Your task to perform on an android device: Open Chrome and go to settings Image 0: 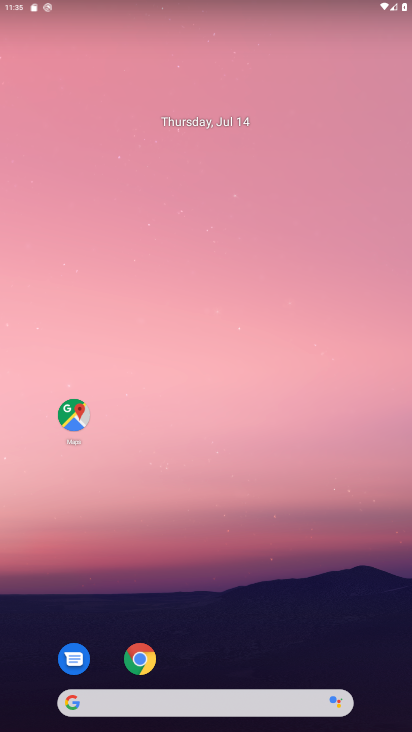
Step 0: click (142, 653)
Your task to perform on an android device: Open Chrome and go to settings Image 1: 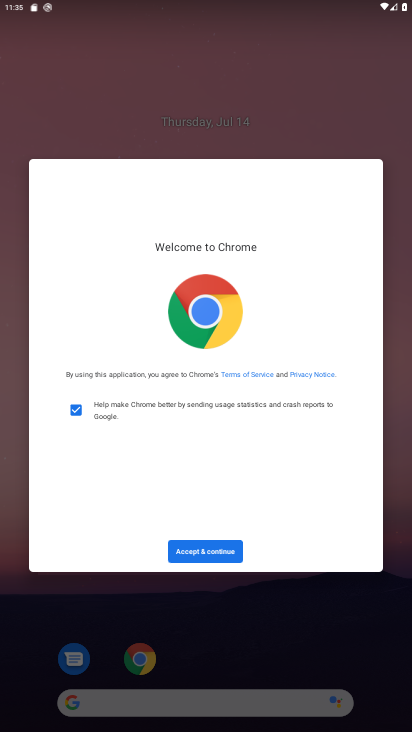
Step 1: click (225, 551)
Your task to perform on an android device: Open Chrome and go to settings Image 2: 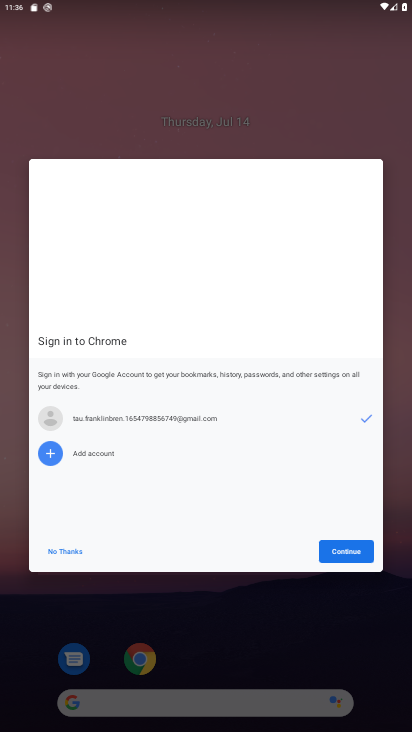
Step 2: click (332, 555)
Your task to perform on an android device: Open Chrome and go to settings Image 3: 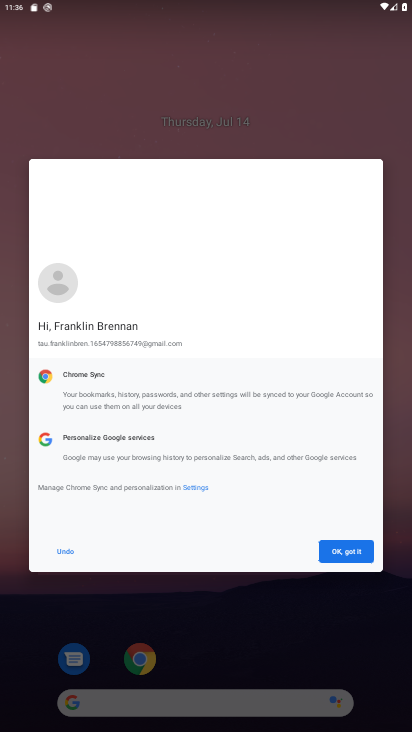
Step 3: click (332, 555)
Your task to perform on an android device: Open Chrome and go to settings Image 4: 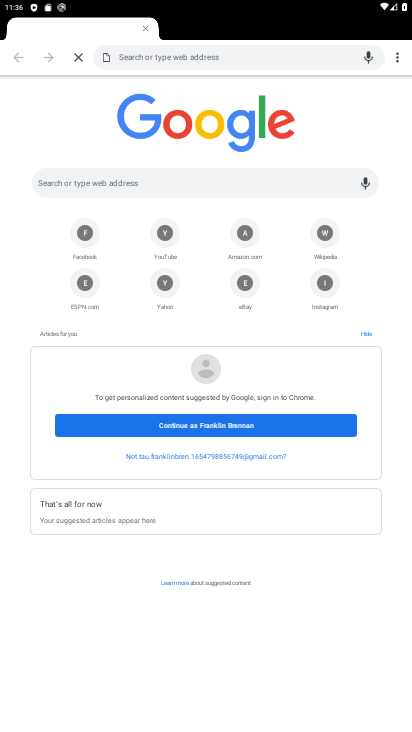
Step 4: click (403, 60)
Your task to perform on an android device: Open Chrome and go to settings Image 5: 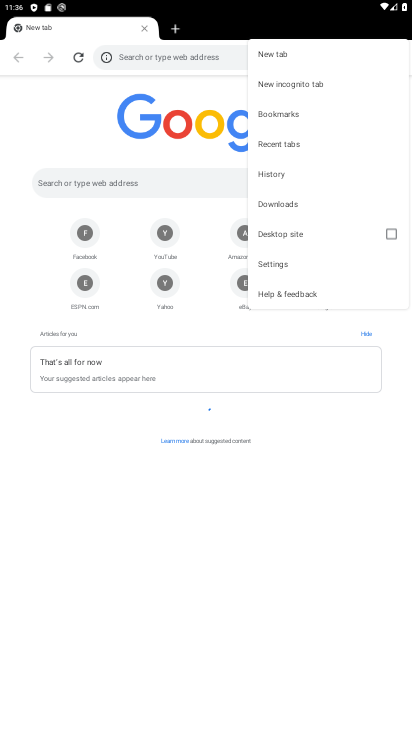
Step 5: click (285, 266)
Your task to perform on an android device: Open Chrome and go to settings Image 6: 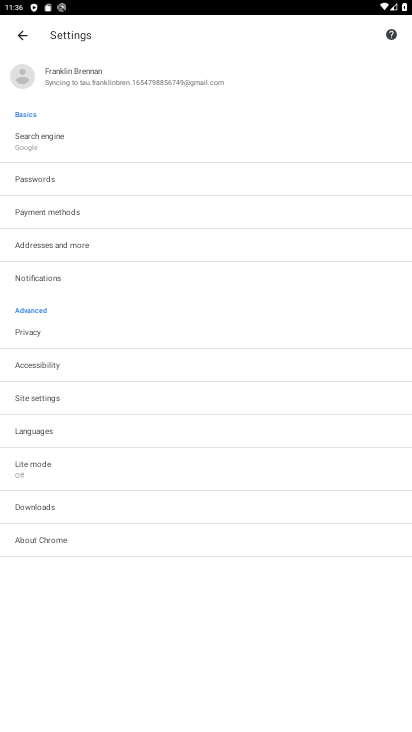
Step 6: task complete